Your task to perform on an android device: Search for "energizer triple a" on walmart, select the first entry, add it to the cart, then select checkout. Image 0: 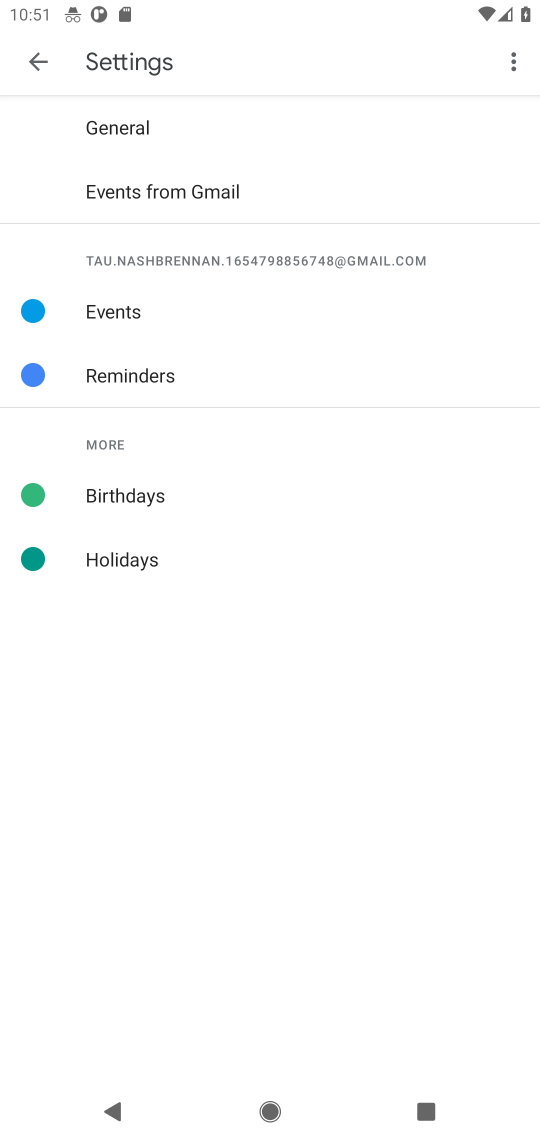
Step 0: press home button
Your task to perform on an android device: Search for "energizer triple a" on walmart, select the first entry, add it to the cart, then select checkout. Image 1: 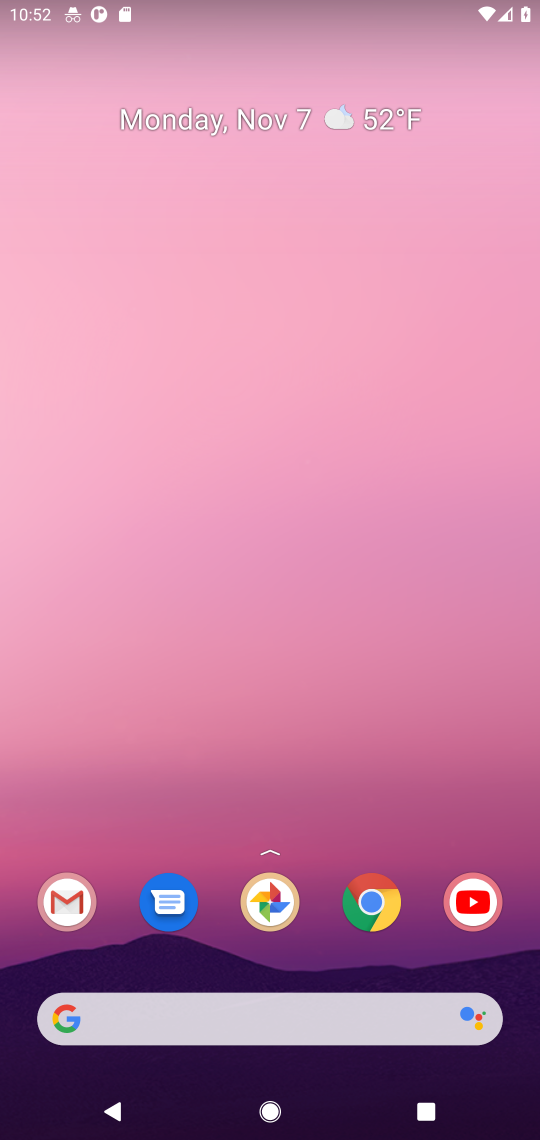
Step 1: click (370, 910)
Your task to perform on an android device: Search for "energizer triple a" on walmart, select the first entry, add it to the cart, then select checkout. Image 2: 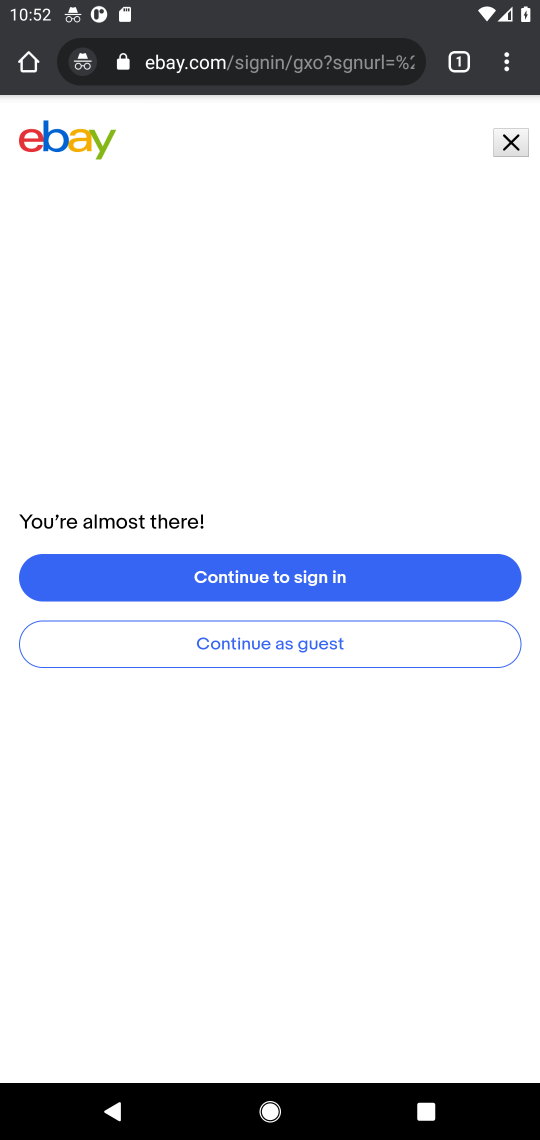
Step 2: click (271, 64)
Your task to perform on an android device: Search for "energizer triple a" on walmart, select the first entry, add it to the cart, then select checkout. Image 3: 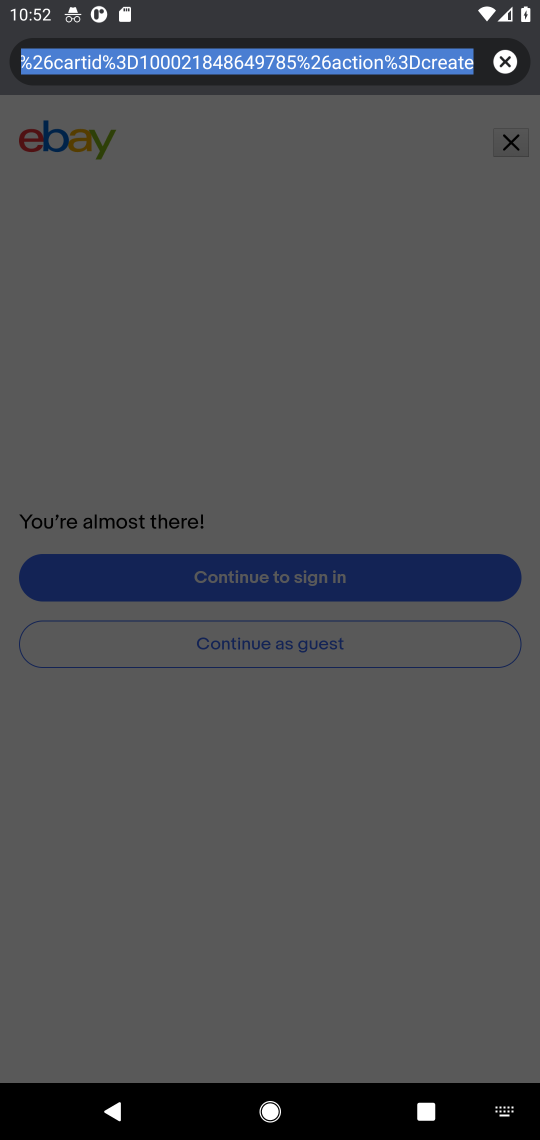
Step 3: type "walamrt.com"
Your task to perform on an android device: Search for "energizer triple a" on walmart, select the first entry, add it to the cart, then select checkout. Image 4: 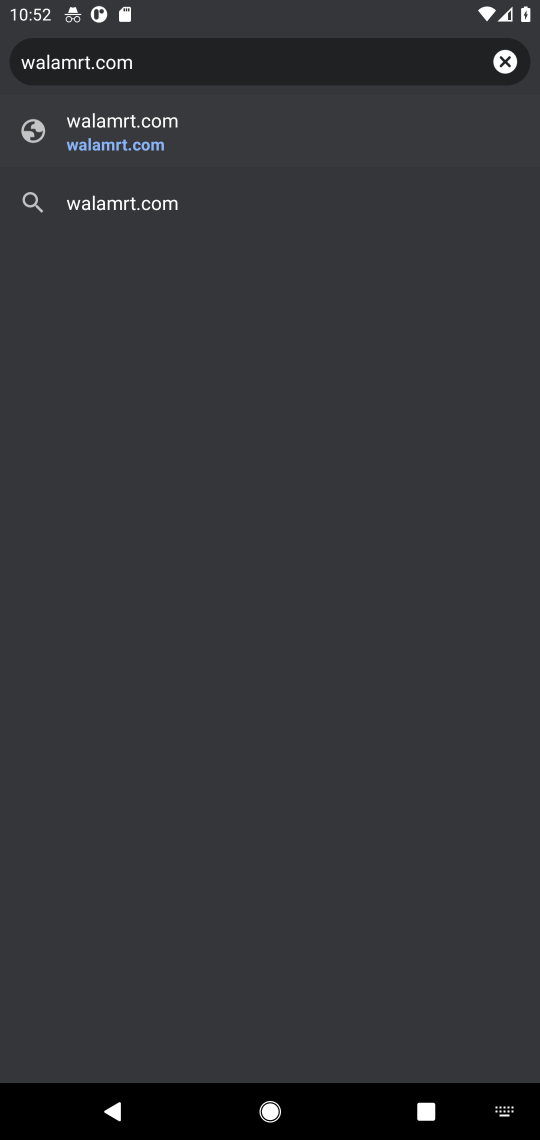
Step 4: click (508, 67)
Your task to perform on an android device: Search for "energizer triple a" on walmart, select the first entry, add it to the cart, then select checkout. Image 5: 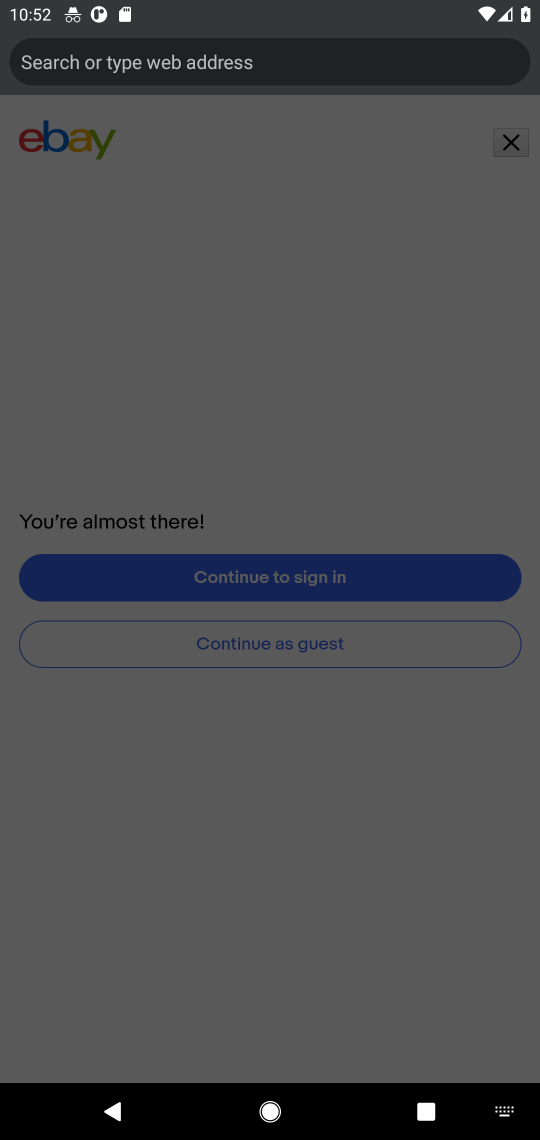
Step 5: type "walmart.com"
Your task to perform on an android device: Search for "energizer triple a" on walmart, select the first entry, add it to the cart, then select checkout. Image 6: 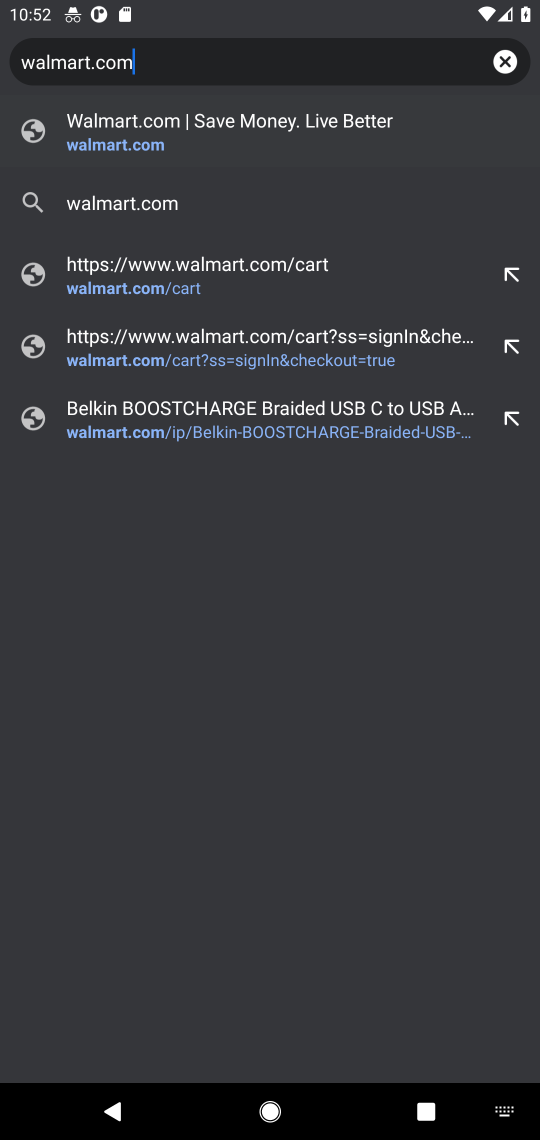
Step 6: click (110, 138)
Your task to perform on an android device: Search for "energizer triple a" on walmart, select the first entry, add it to the cart, then select checkout. Image 7: 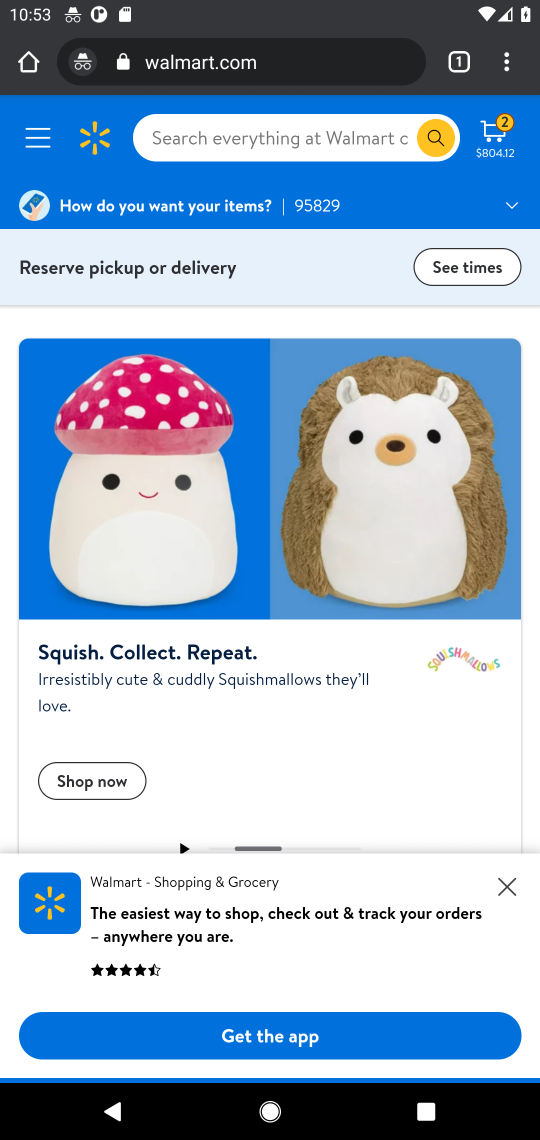
Step 7: click (243, 145)
Your task to perform on an android device: Search for "energizer triple a" on walmart, select the first entry, add it to the cart, then select checkout. Image 8: 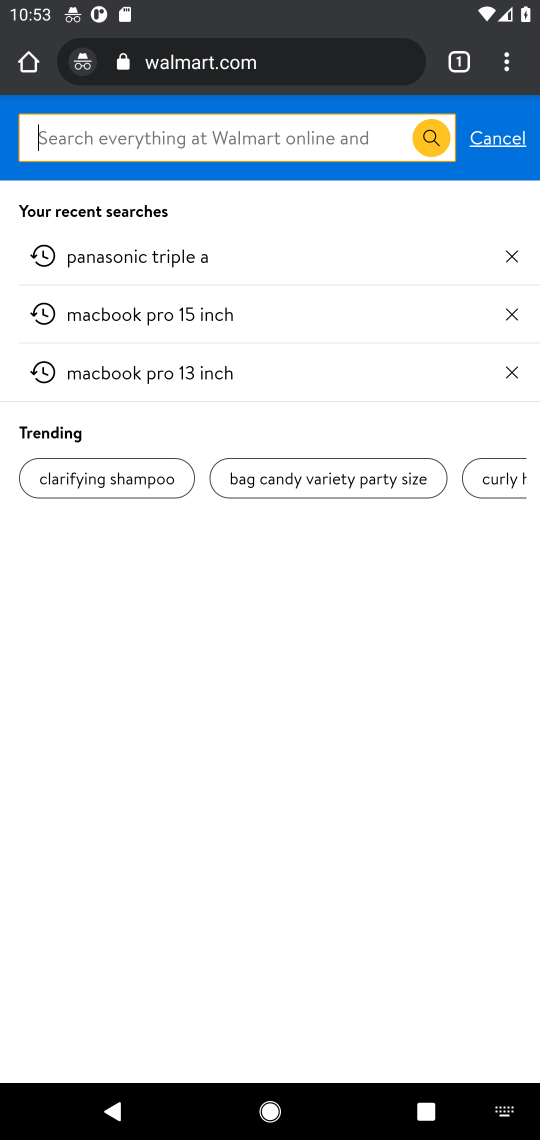
Step 8: type "energizer triple a"
Your task to perform on an android device: Search for "energizer triple a" on walmart, select the first entry, add it to the cart, then select checkout. Image 9: 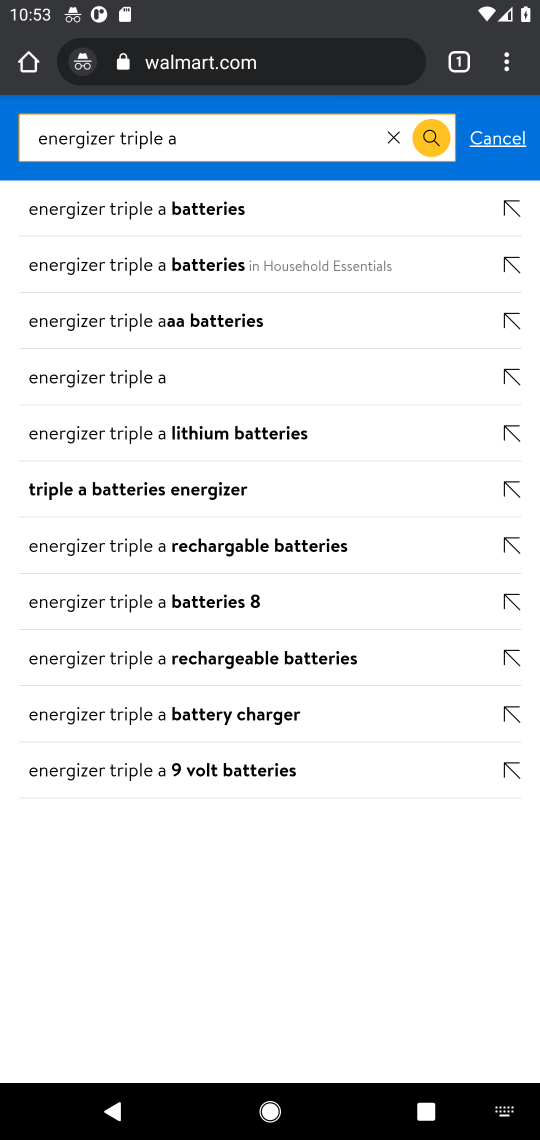
Step 9: click (137, 385)
Your task to perform on an android device: Search for "energizer triple a" on walmart, select the first entry, add it to the cart, then select checkout. Image 10: 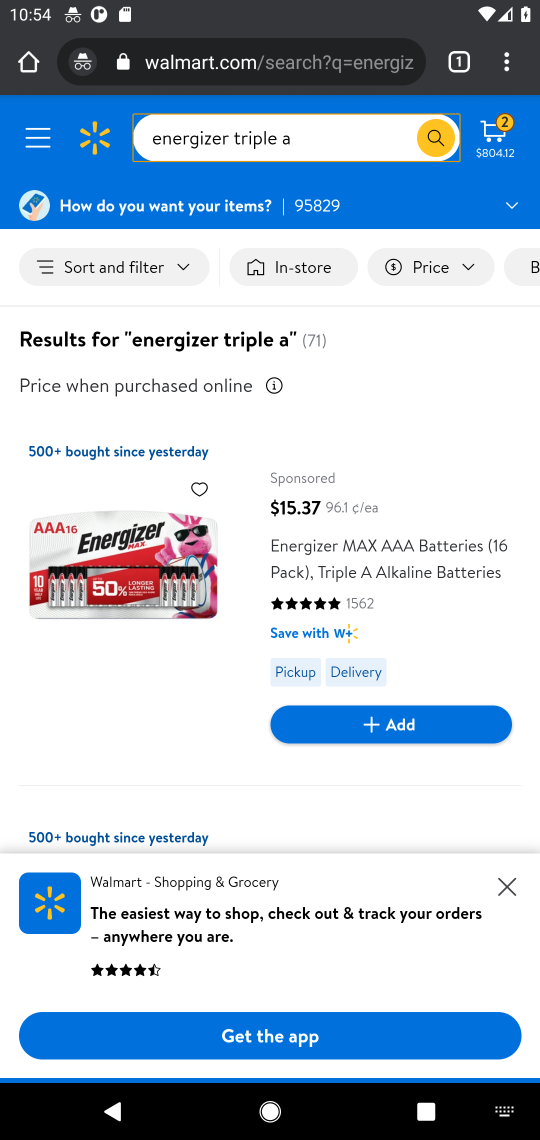
Step 10: click (380, 731)
Your task to perform on an android device: Search for "energizer triple a" on walmart, select the first entry, add it to the cart, then select checkout. Image 11: 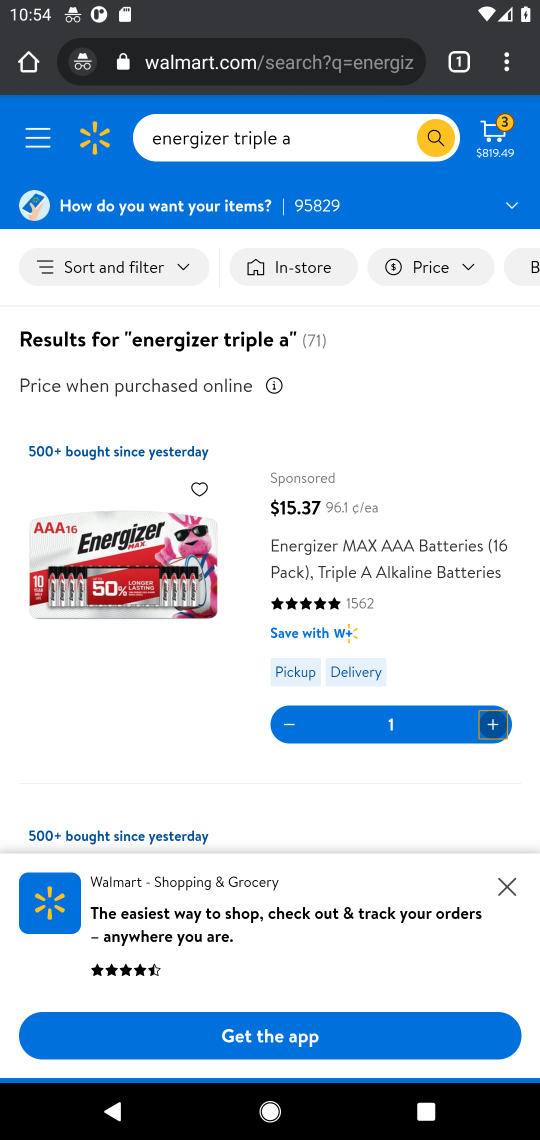
Step 11: click (490, 142)
Your task to perform on an android device: Search for "energizer triple a" on walmart, select the first entry, add it to the cart, then select checkout. Image 12: 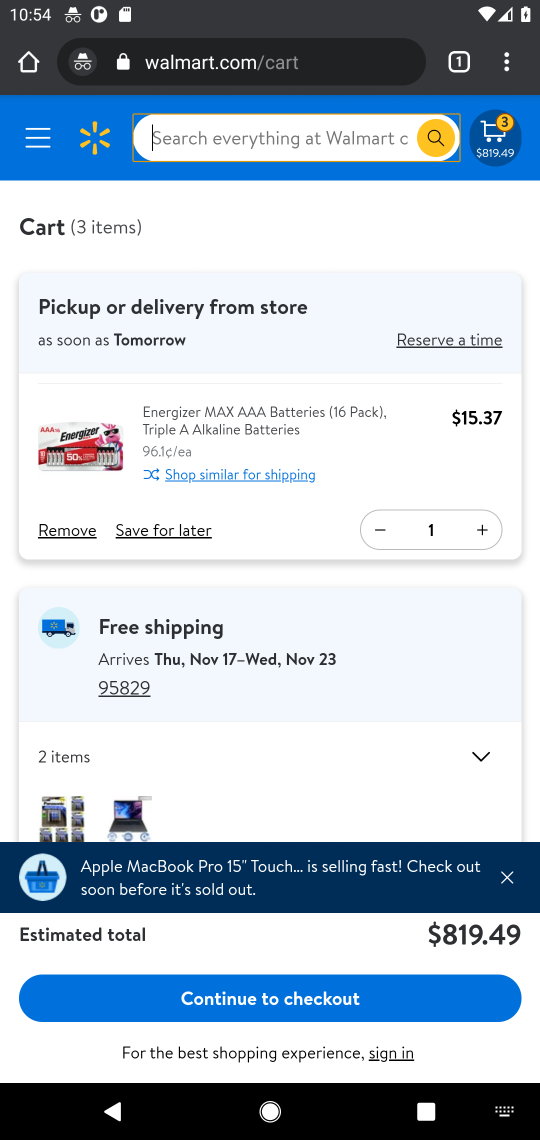
Step 12: click (286, 999)
Your task to perform on an android device: Search for "energizer triple a" on walmart, select the first entry, add it to the cart, then select checkout. Image 13: 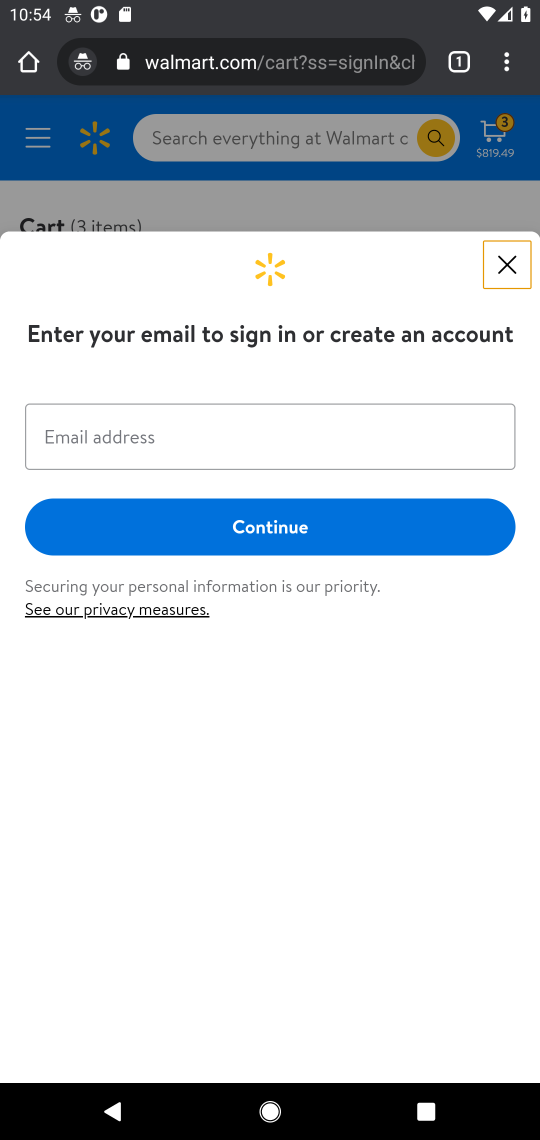
Step 13: task complete